Your task to perform on an android device: open app "WhatsApp Messenger" Image 0: 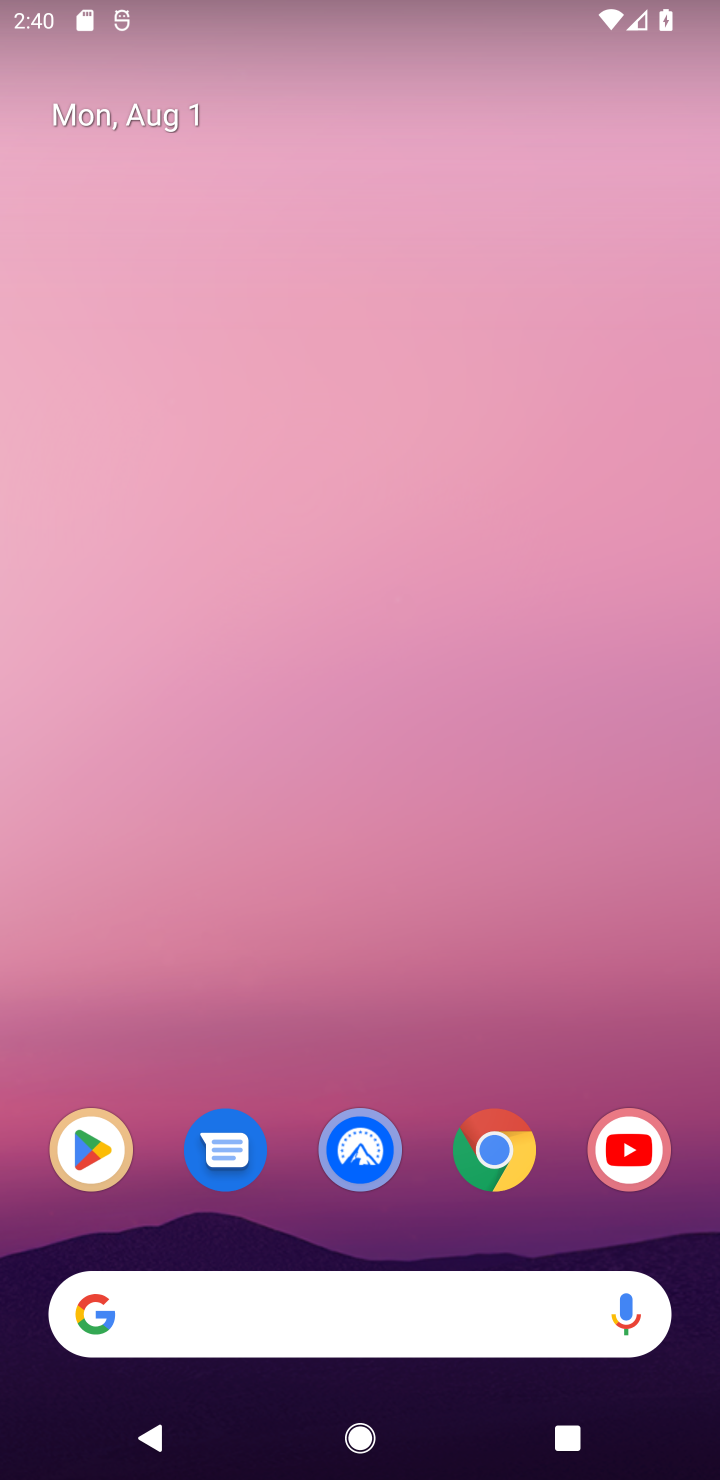
Step 0: drag from (412, 1245) to (491, 0)
Your task to perform on an android device: open app "WhatsApp Messenger" Image 1: 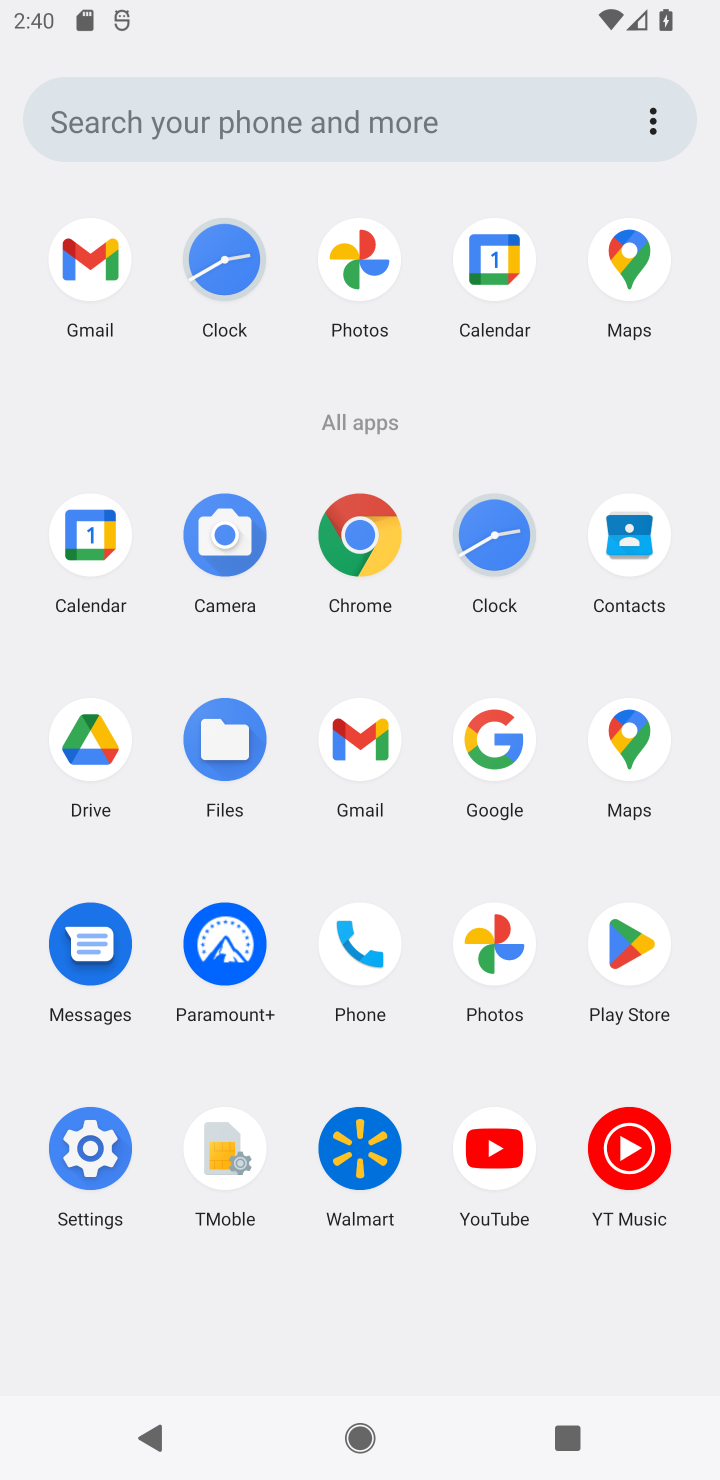
Step 1: click (633, 953)
Your task to perform on an android device: open app "WhatsApp Messenger" Image 2: 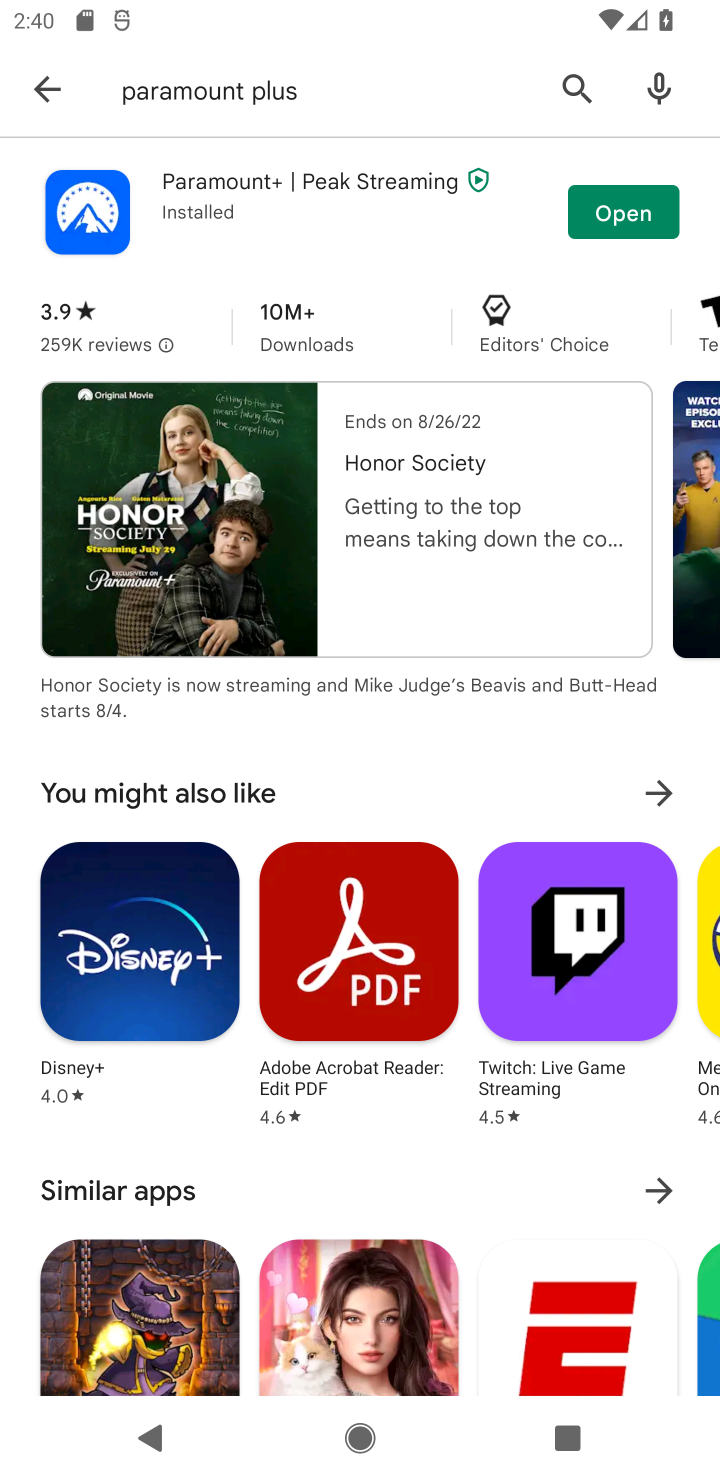
Step 2: click (507, 99)
Your task to perform on an android device: open app "WhatsApp Messenger" Image 3: 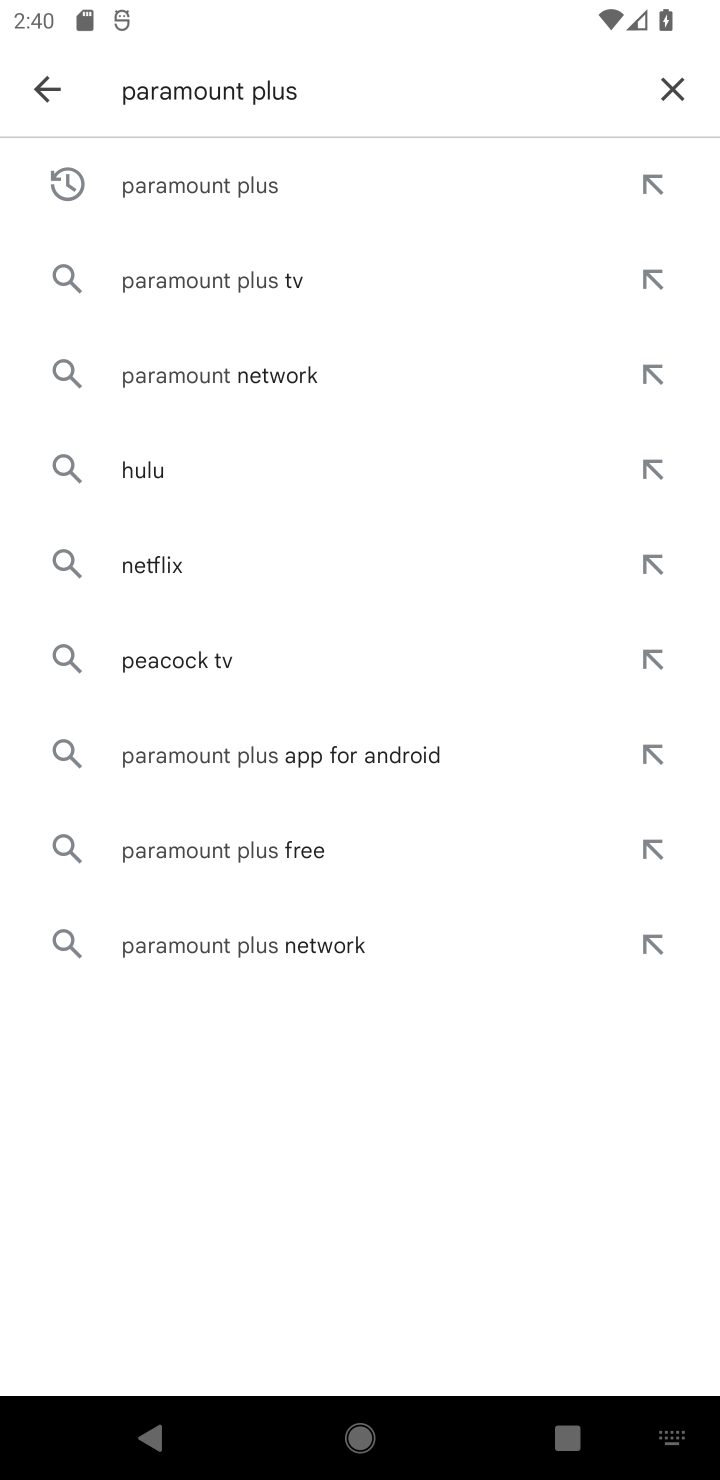
Step 3: click (674, 99)
Your task to perform on an android device: open app "WhatsApp Messenger" Image 4: 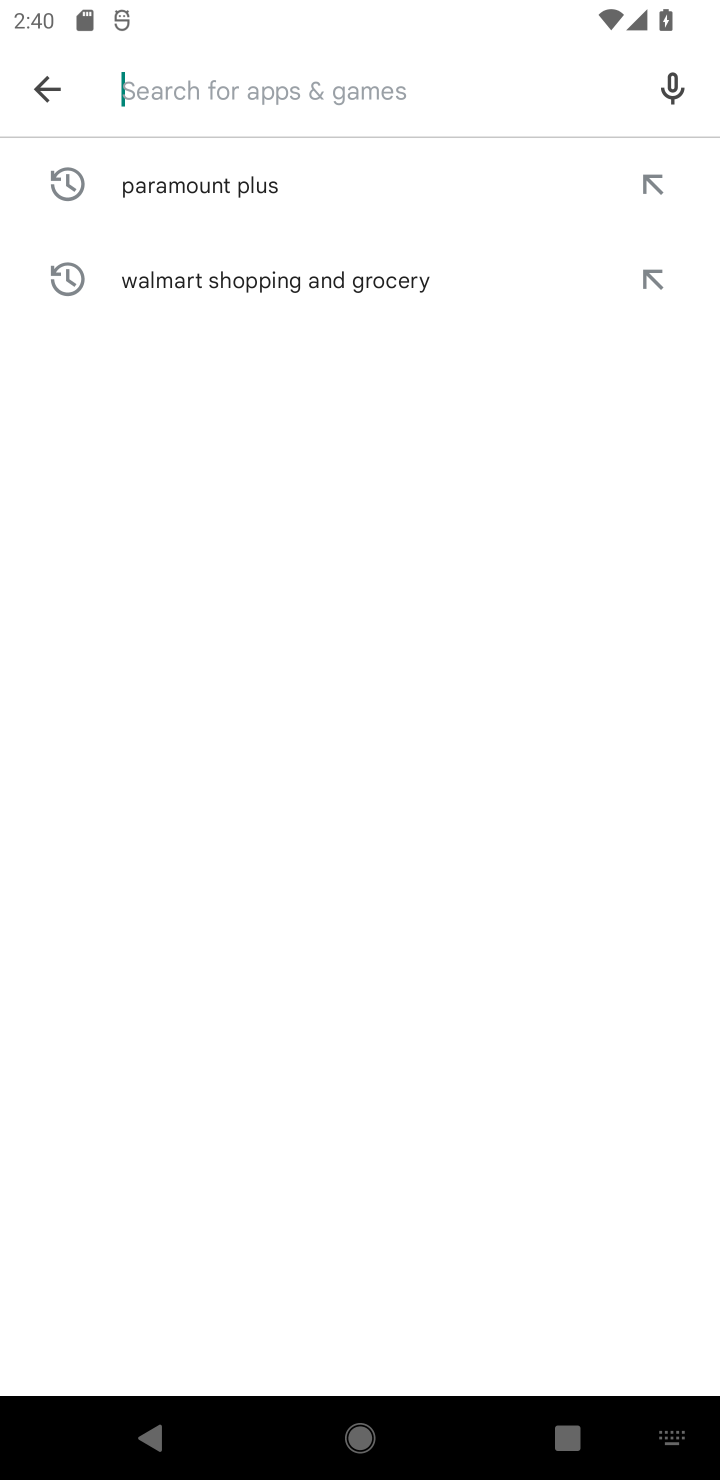
Step 4: type "whatsapp"
Your task to perform on an android device: open app "WhatsApp Messenger" Image 5: 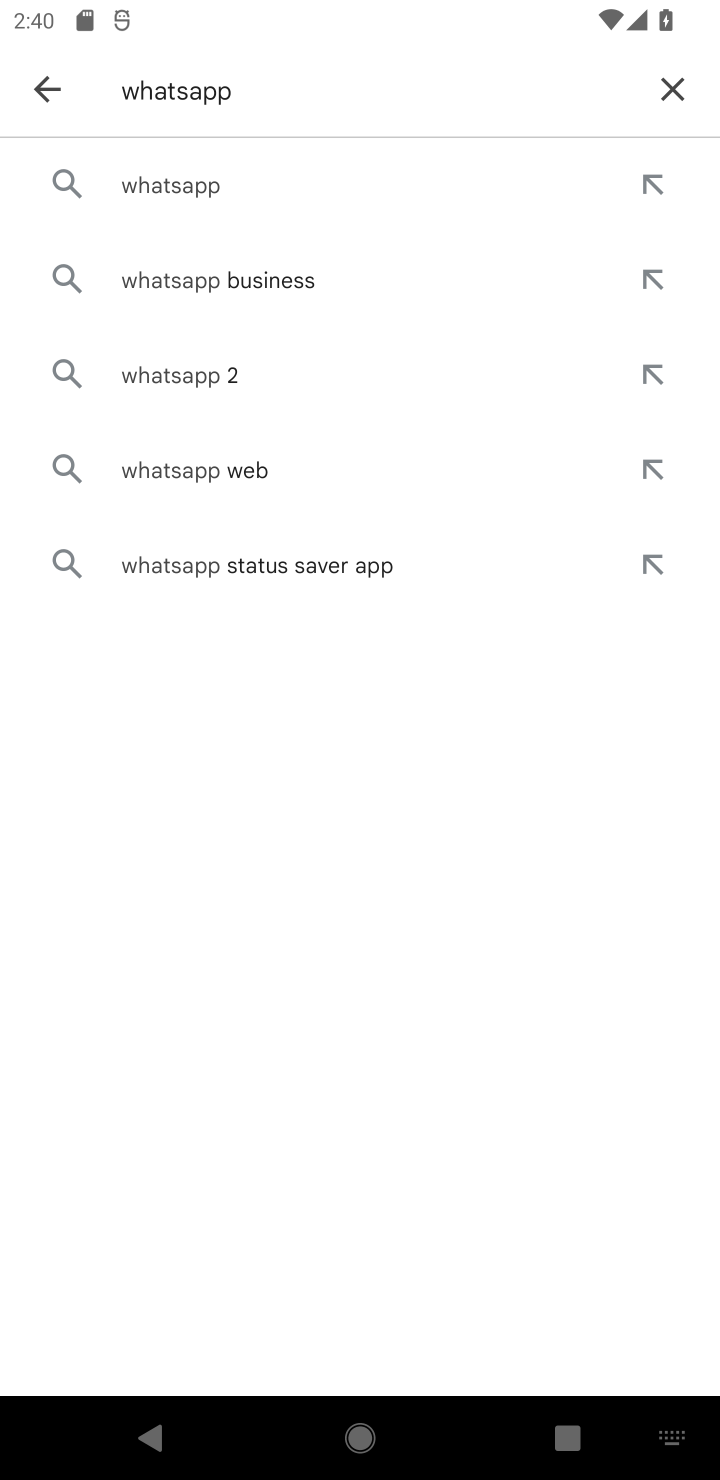
Step 5: click (342, 195)
Your task to perform on an android device: open app "WhatsApp Messenger" Image 6: 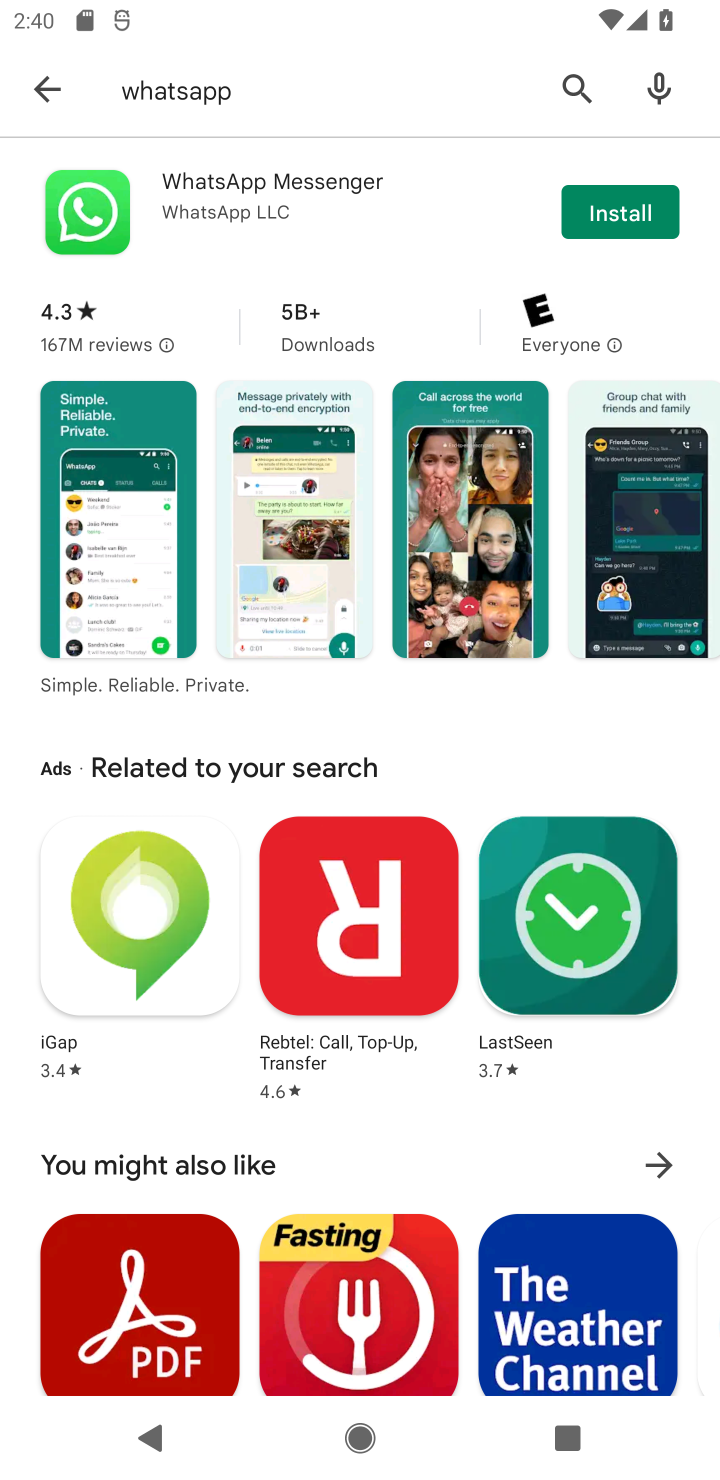
Step 6: click (663, 197)
Your task to perform on an android device: open app "WhatsApp Messenger" Image 7: 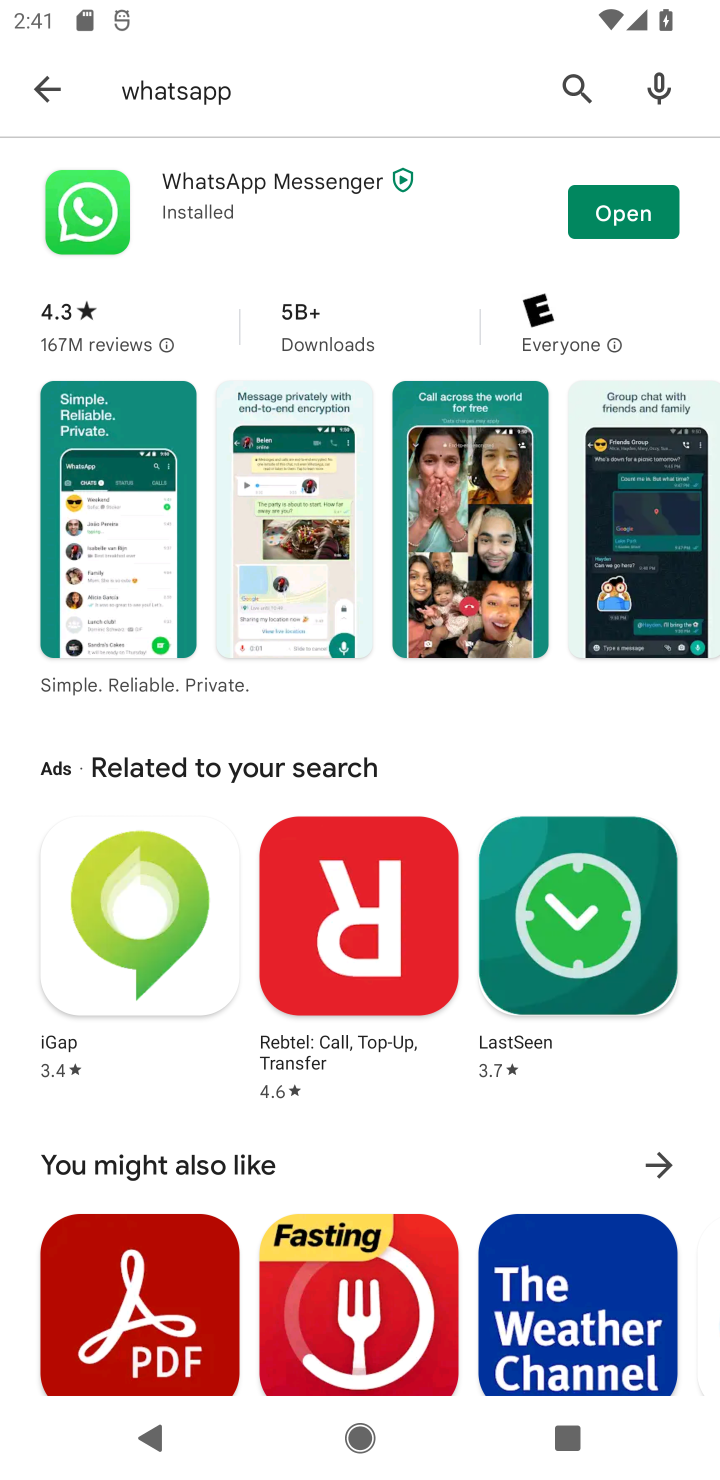
Step 7: task complete